Your task to perform on an android device: Open Google Chrome and click the shortcut for Amazon.com Image 0: 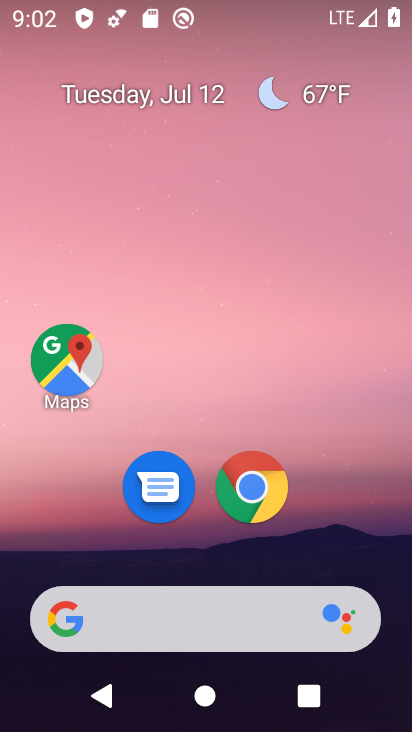
Step 0: click (268, 485)
Your task to perform on an android device: Open Google Chrome and click the shortcut for Amazon.com Image 1: 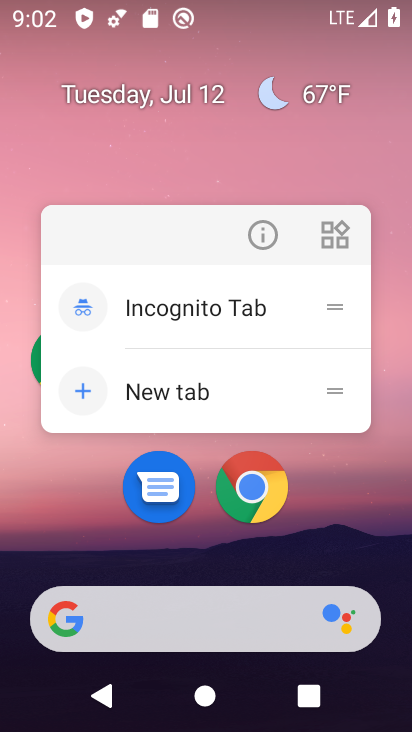
Step 1: click (251, 484)
Your task to perform on an android device: Open Google Chrome and click the shortcut for Amazon.com Image 2: 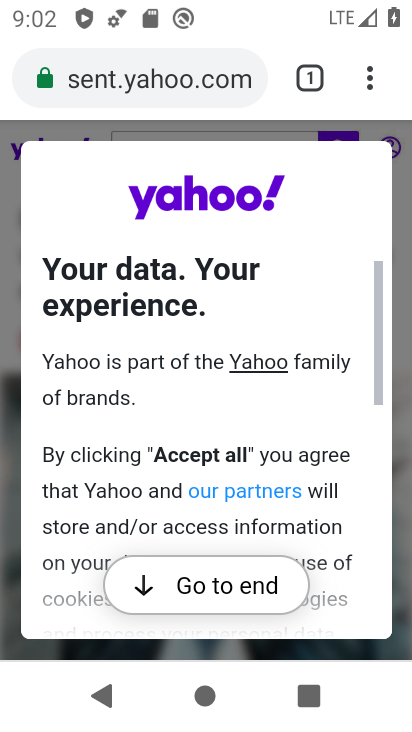
Step 2: click (314, 62)
Your task to perform on an android device: Open Google Chrome and click the shortcut for Amazon.com Image 3: 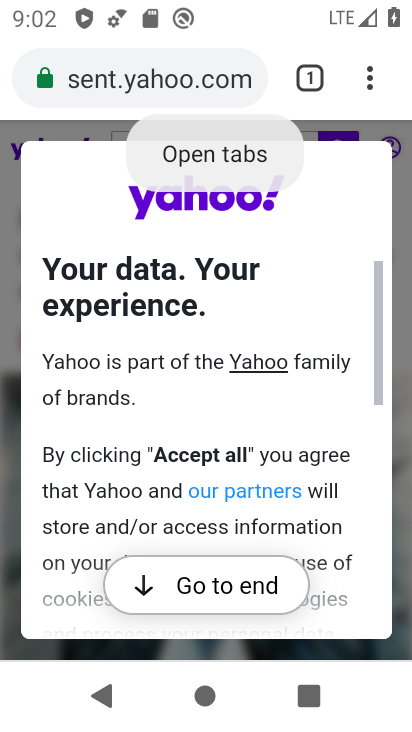
Step 3: click (295, 78)
Your task to perform on an android device: Open Google Chrome and click the shortcut for Amazon.com Image 4: 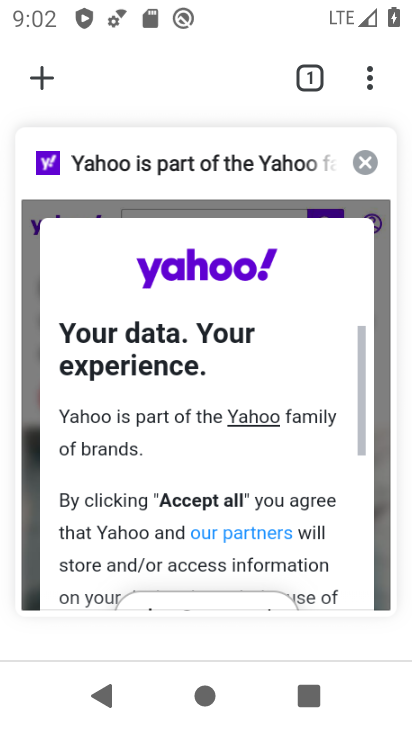
Step 4: click (21, 64)
Your task to perform on an android device: Open Google Chrome and click the shortcut for Amazon.com Image 5: 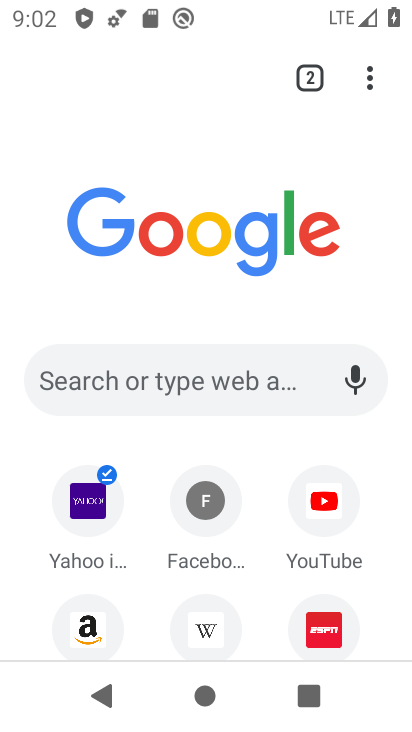
Step 5: click (70, 628)
Your task to perform on an android device: Open Google Chrome and click the shortcut for Amazon.com Image 6: 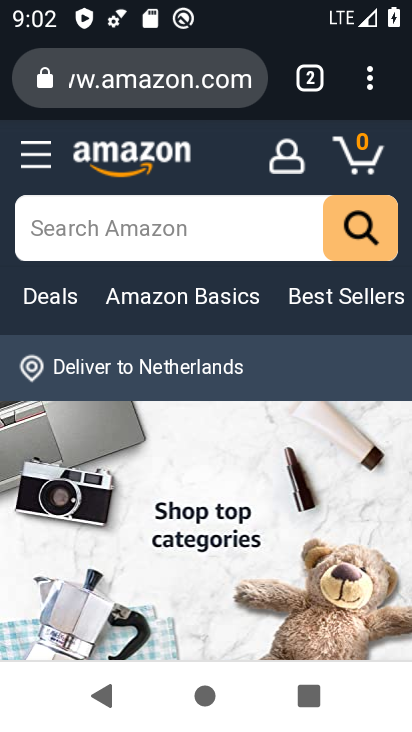
Step 6: task complete